Your task to perform on an android device: open app "eBay: The shopping marketplace" Image 0: 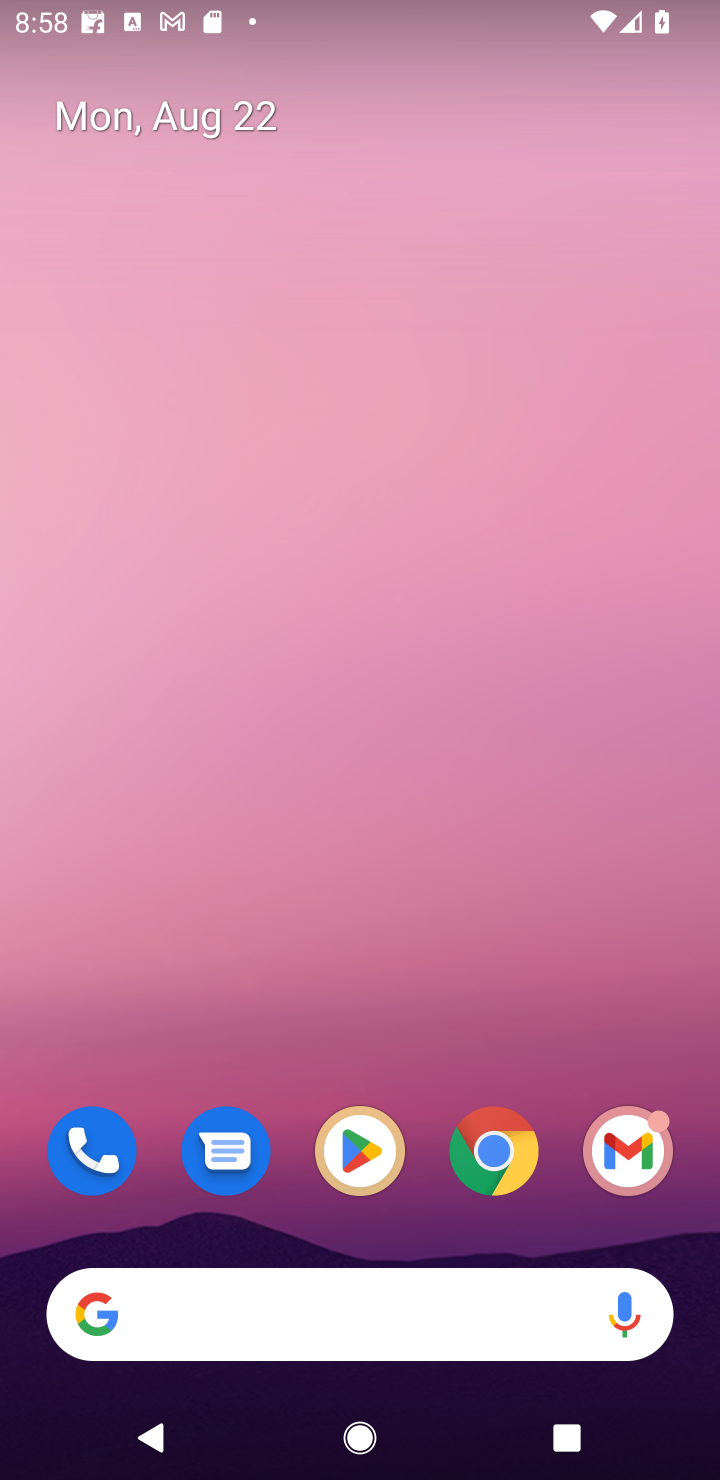
Step 0: press home button
Your task to perform on an android device: open app "eBay: The shopping marketplace" Image 1: 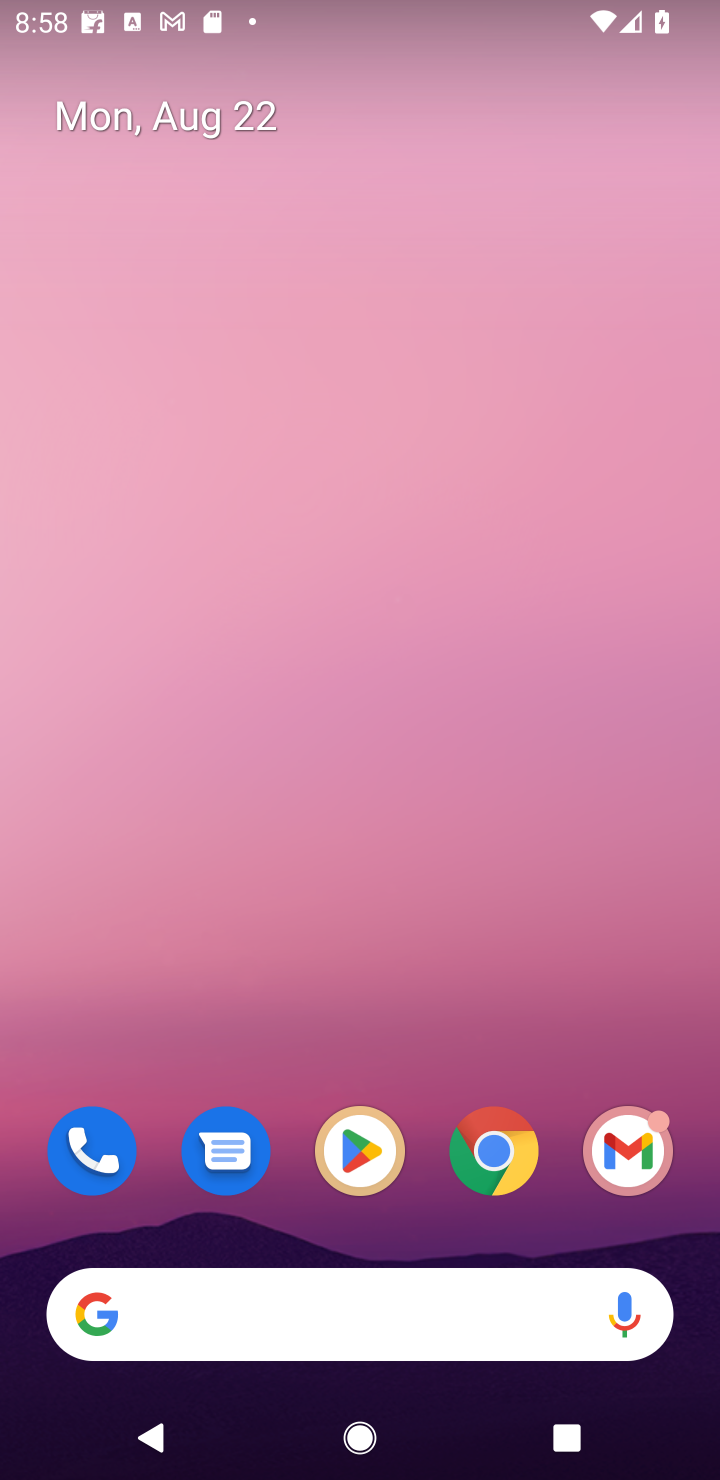
Step 1: click (366, 1159)
Your task to perform on an android device: open app "eBay: The shopping marketplace" Image 2: 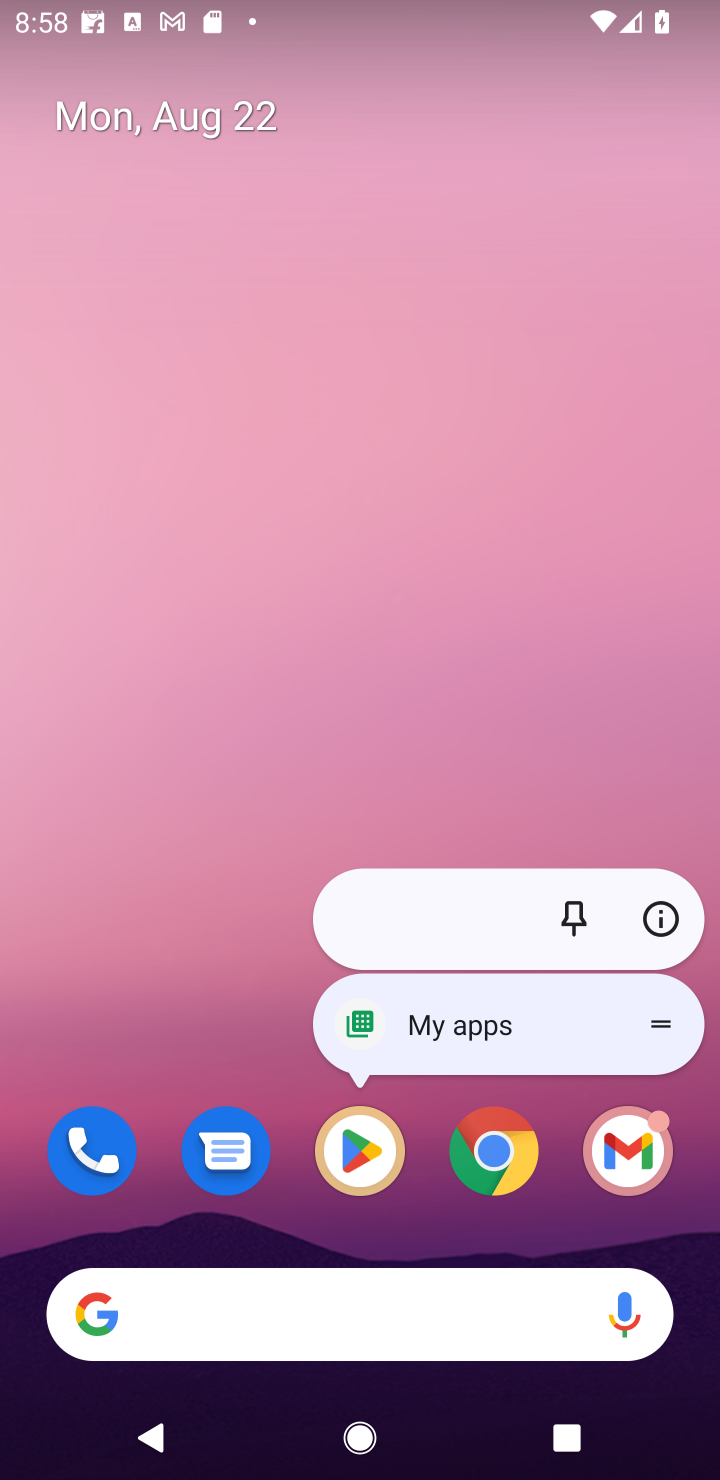
Step 2: click (367, 1159)
Your task to perform on an android device: open app "eBay: The shopping marketplace" Image 3: 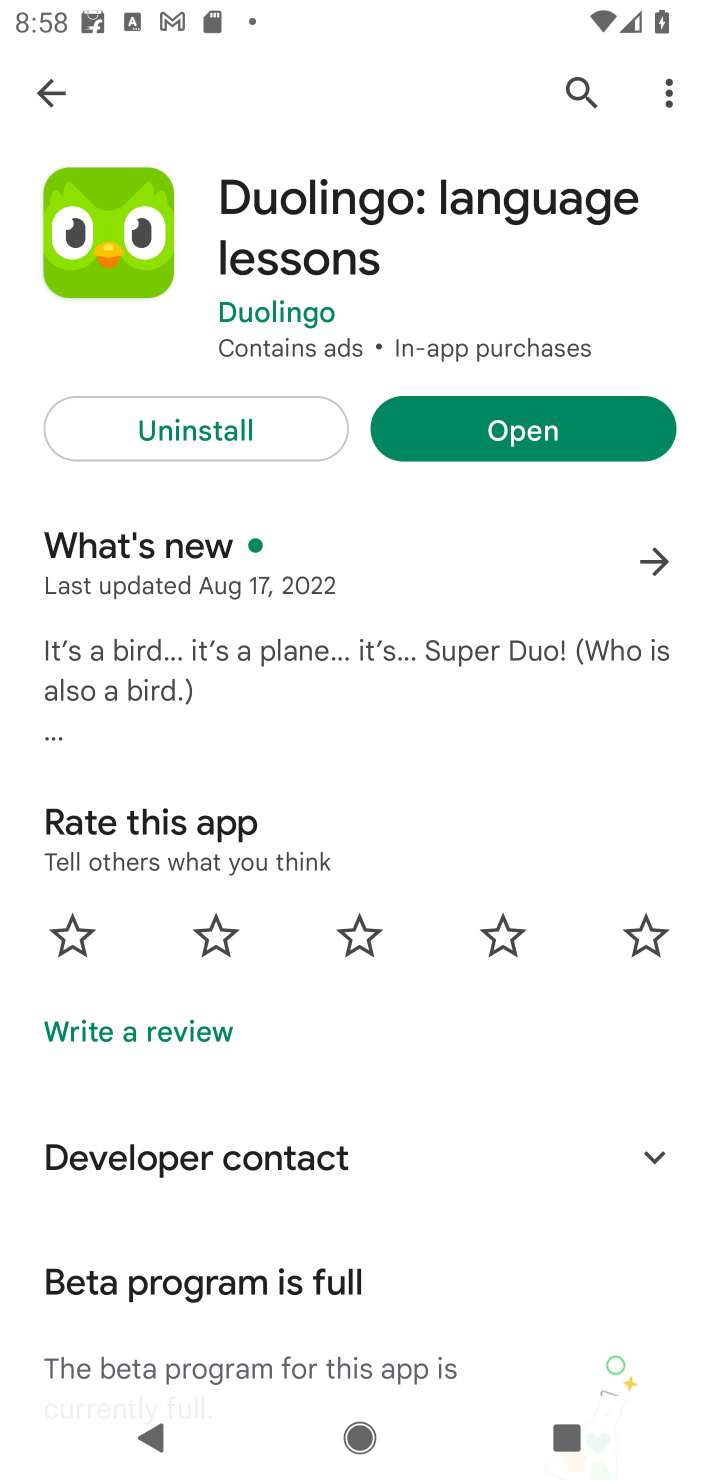
Step 3: click (574, 90)
Your task to perform on an android device: open app "eBay: The shopping marketplace" Image 4: 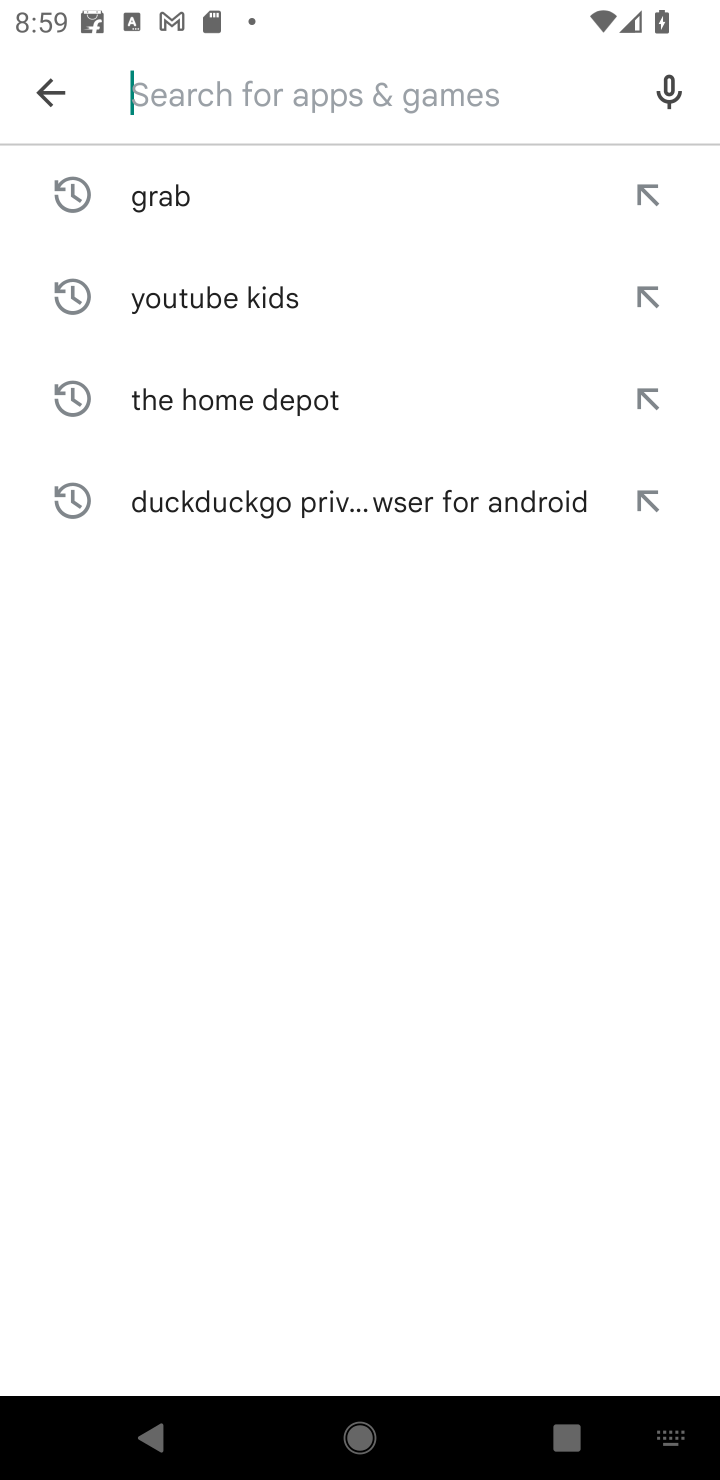
Step 4: type "eBay: The shopping marketplace"
Your task to perform on an android device: open app "eBay: The shopping marketplace" Image 5: 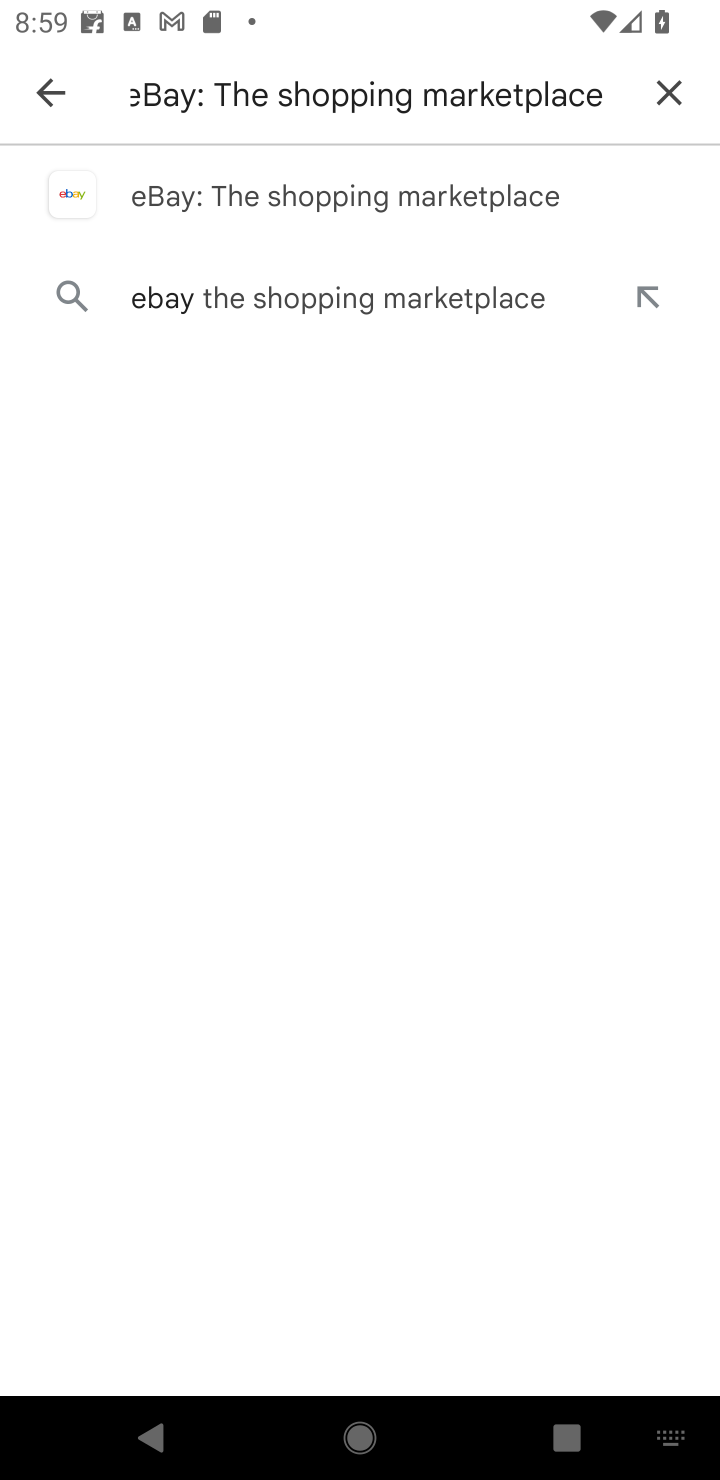
Step 5: click (408, 188)
Your task to perform on an android device: open app "eBay: The shopping marketplace" Image 6: 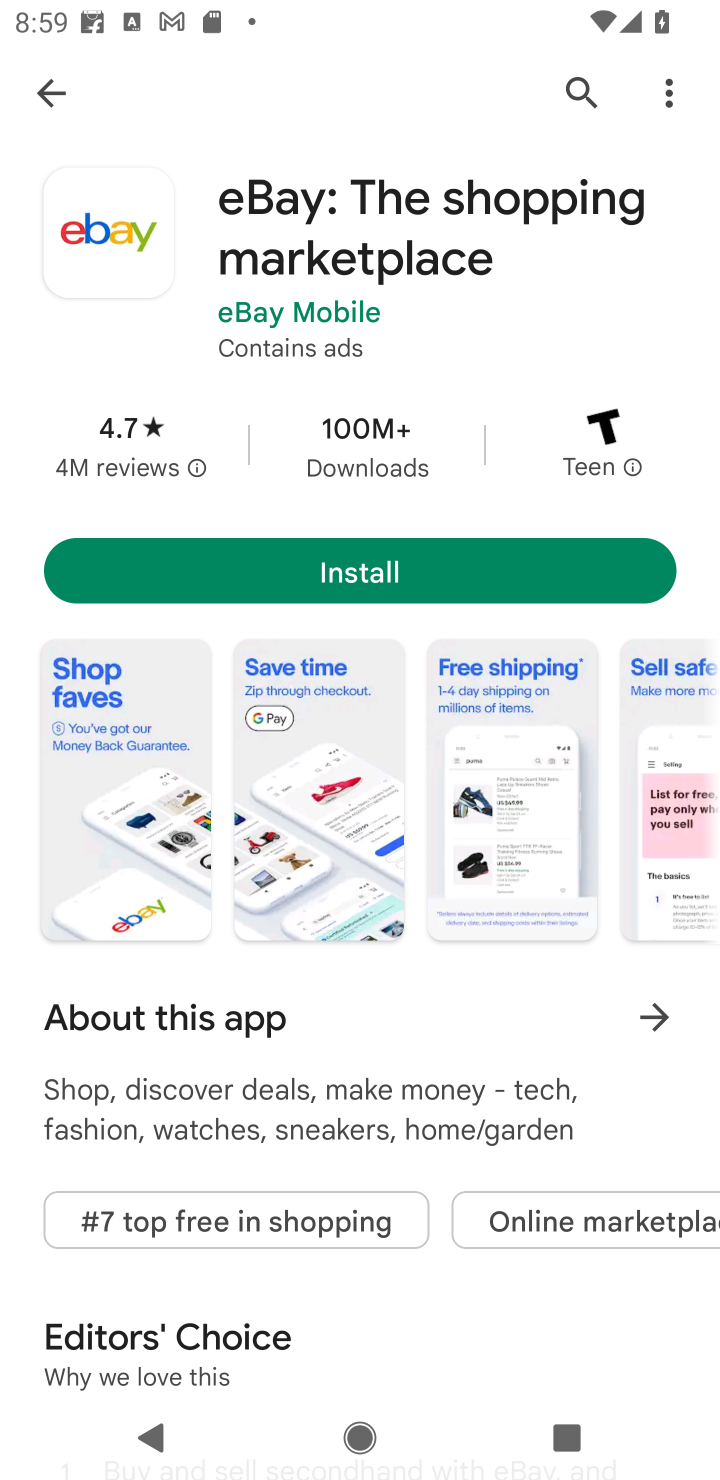
Step 6: task complete